Your task to perform on an android device: install app "Life360: Find Family & Friends" Image 0: 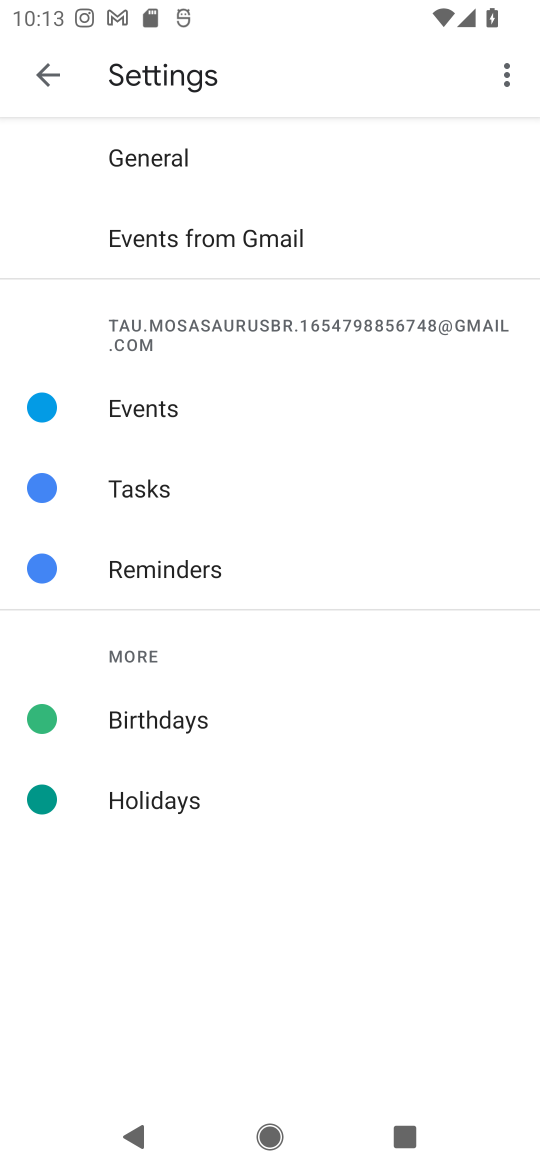
Step 0: press home button
Your task to perform on an android device: install app "Life360: Find Family & Friends" Image 1: 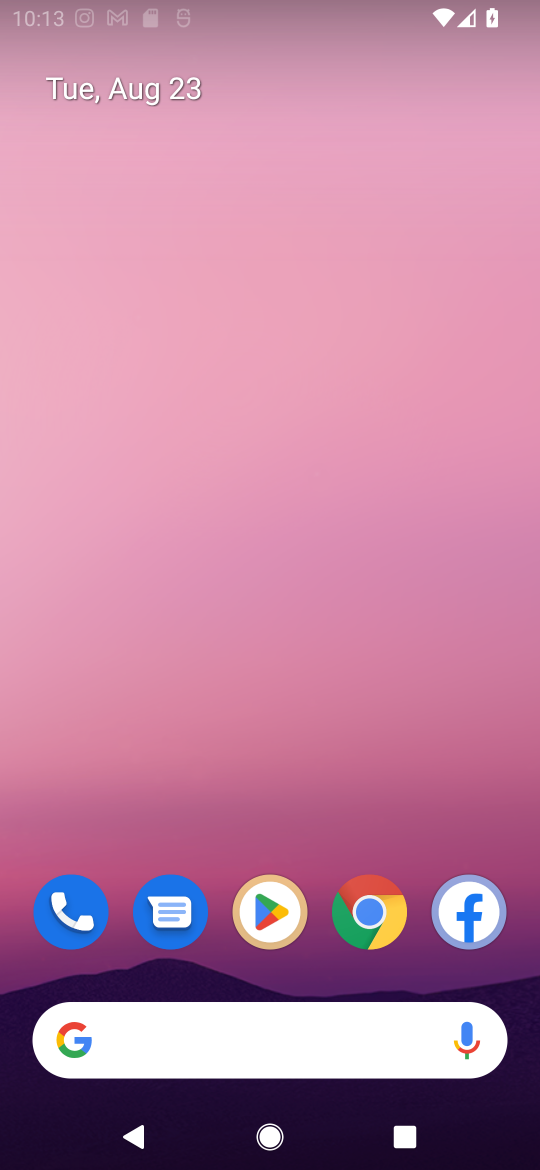
Step 1: click (257, 918)
Your task to perform on an android device: install app "Life360: Find Family & Friends" Image 2: 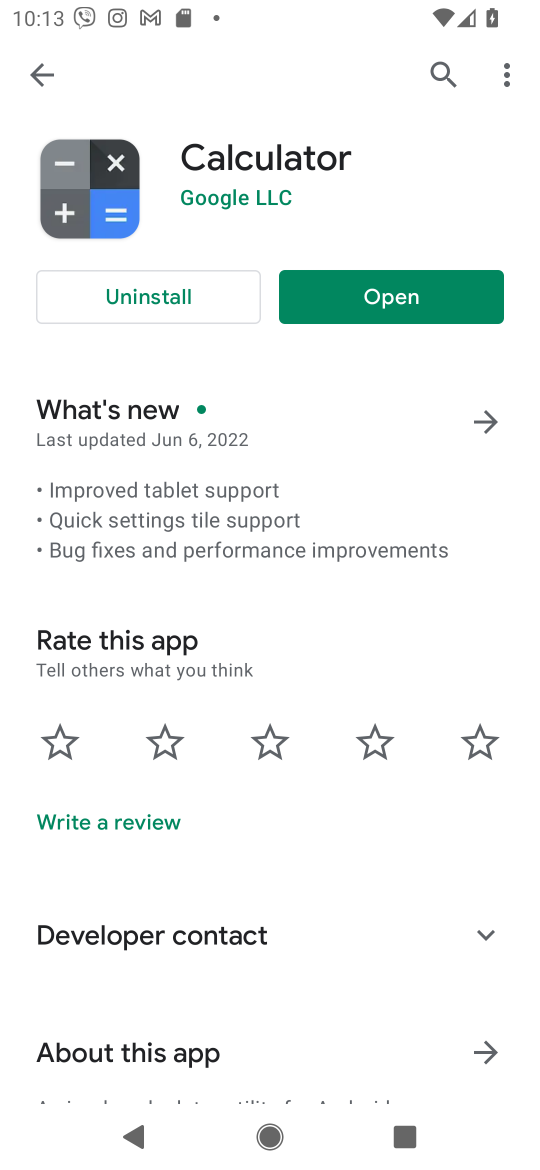
Step 2: click (444, 68)
Your task to perform on an android device: install app "Life360: Find Family & Friends" Image 3: 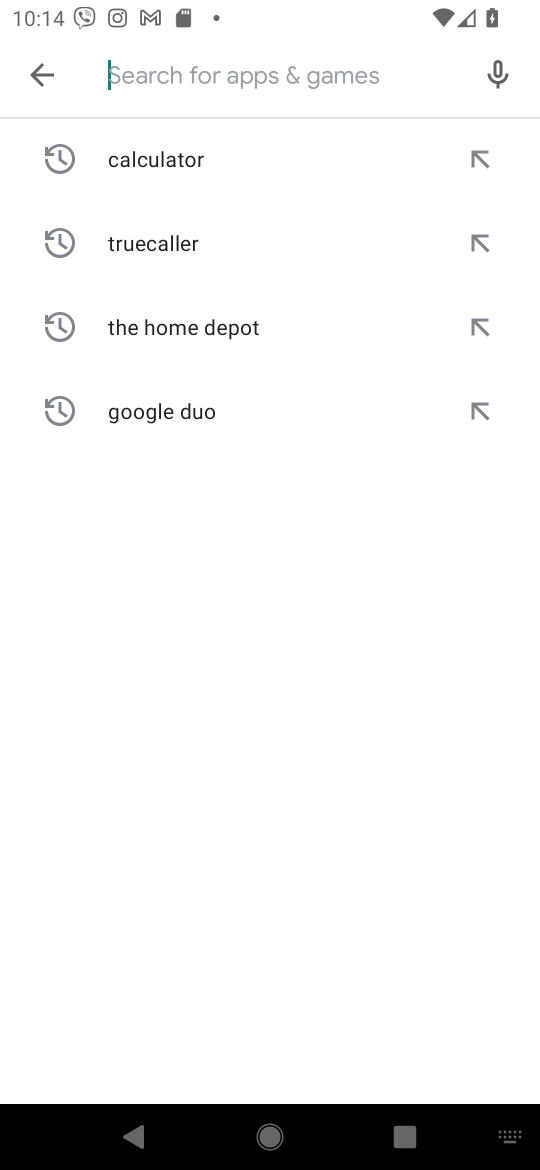
Step 3: type "Life360: Find Family & Friends"
Your task to perform on an android device: install app "Life360: Find Family & Friends" Image 4: 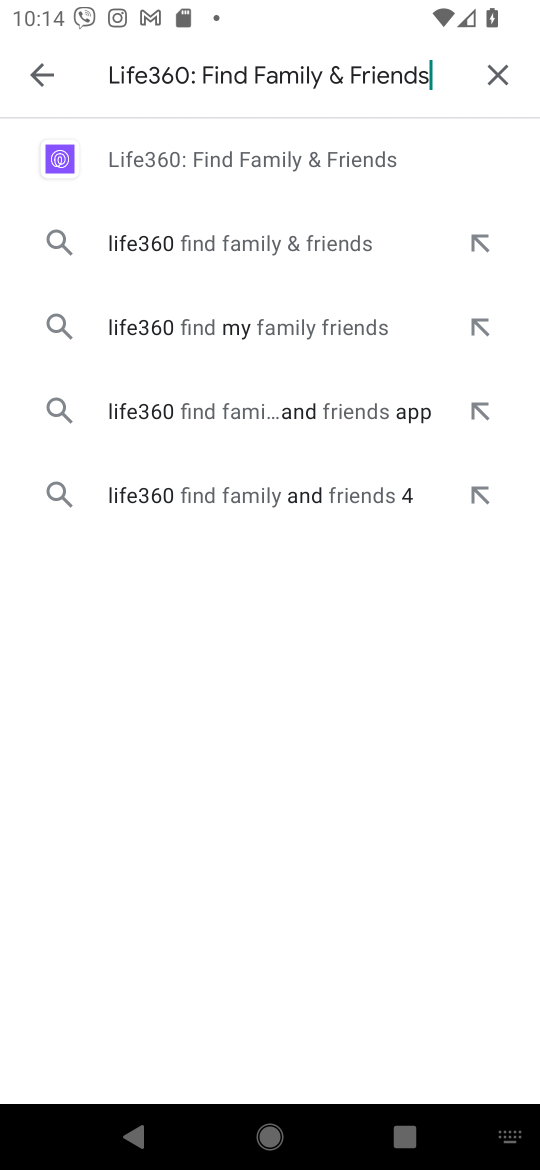
Step 4: click (301, 165)
Your task to perform on an android device: install app "Life360: Find Family & Friends" Image 5: 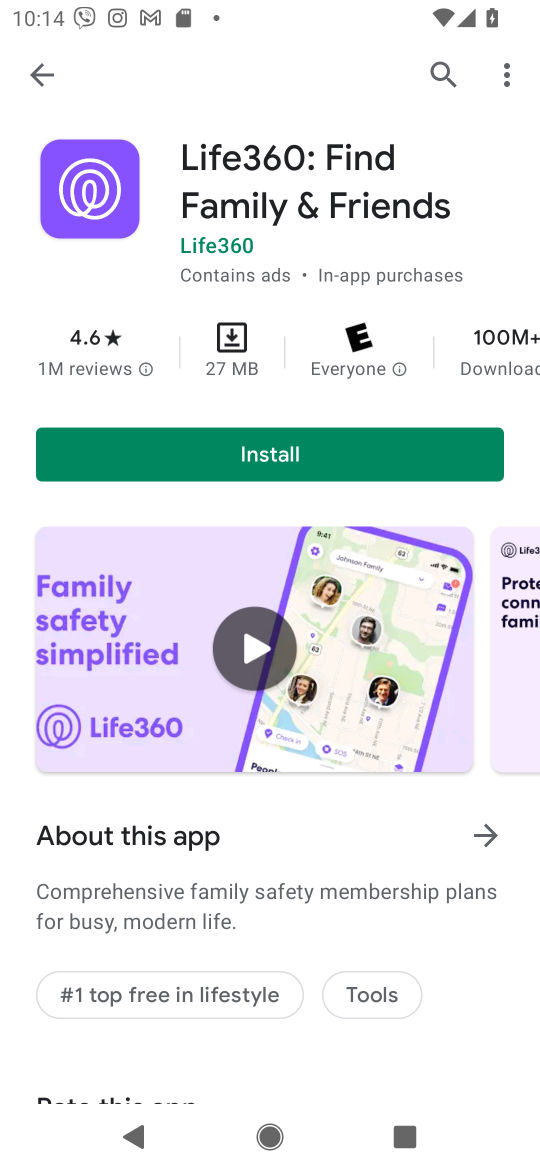
Step 5: click (201, 455)
Your task to perform on an android device: install app "Life360: Find Family & Friends" Image 6: 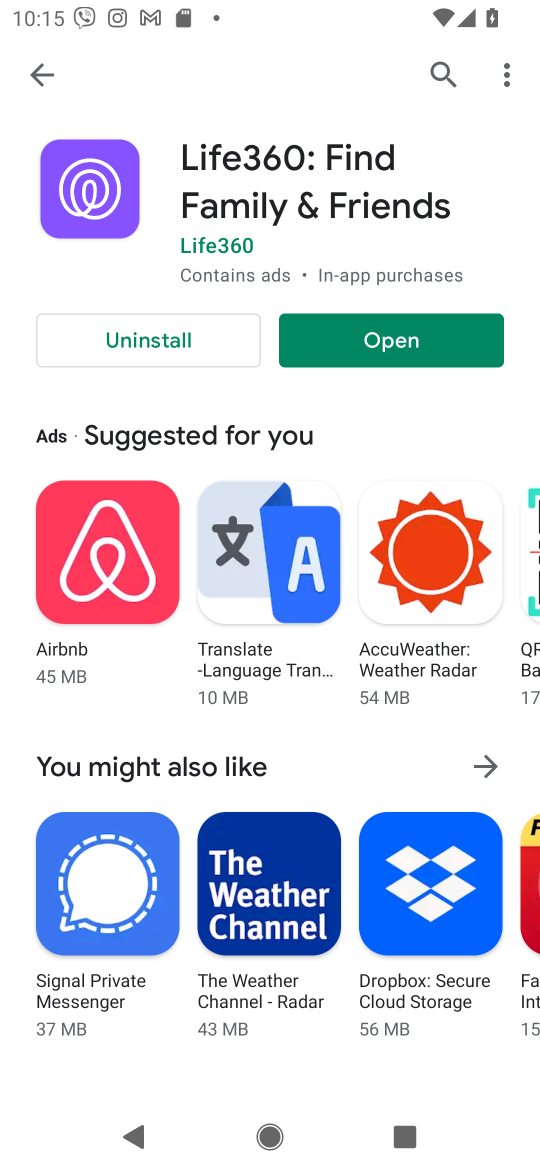
Step 6: task complete